Your task to perform on an android device: check out phone information Image 0: 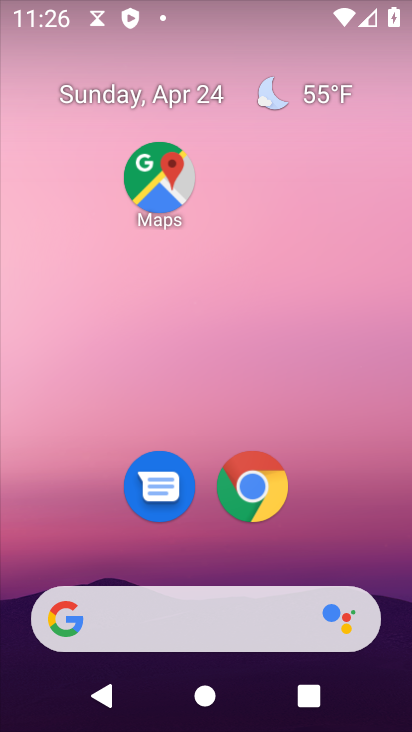
Step 0: click (363, 248)
Your task to perform on an android device: check out phone information Image 1: 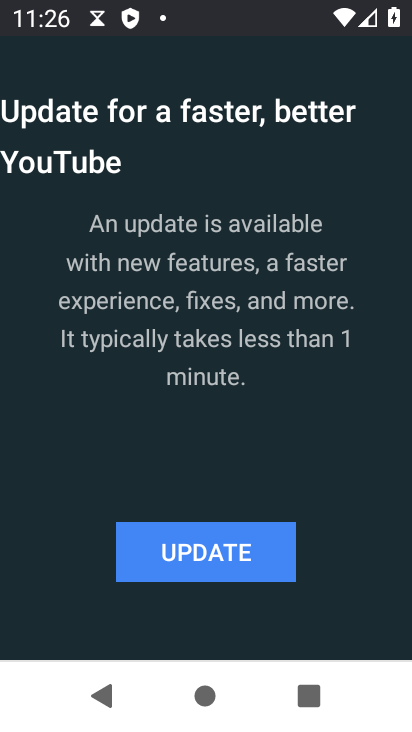
Step 1: press home button
Your task to perform on an android device: check out phone information Image 2: 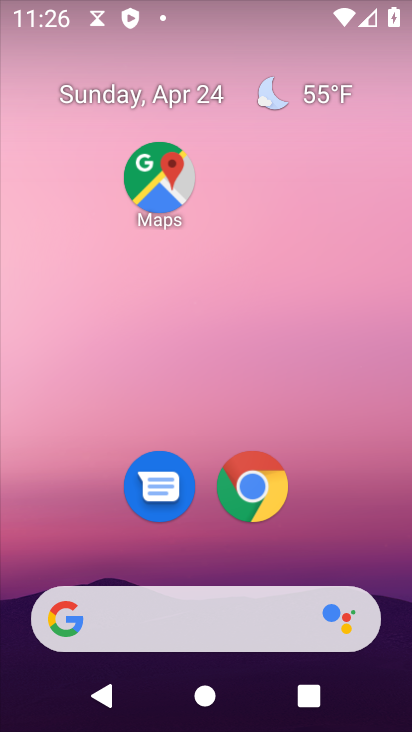
Step 2: drag from (286, 571) to (279, 197)
Your task to perform on an android device: check out phone information Image 3: 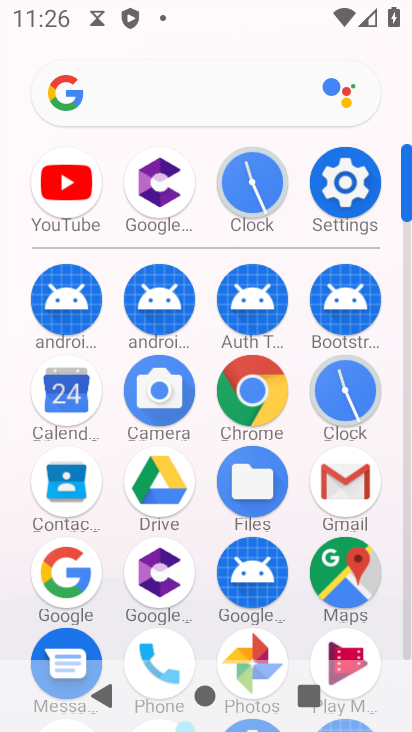
Step 3: click (360, 199)
Your task to perform on an android device: check out phone information Image 4: 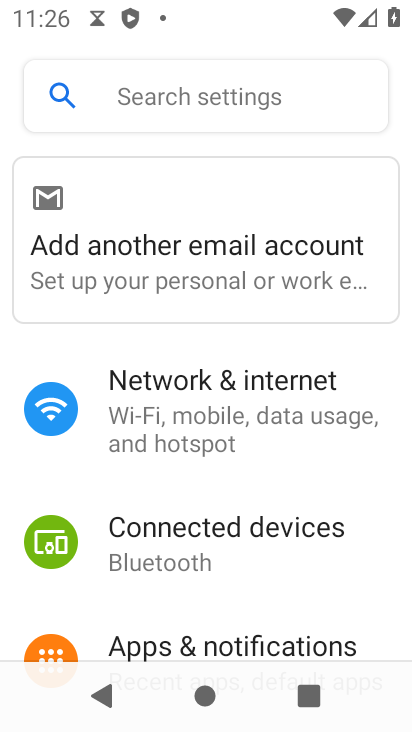
Step 4: drag from (258, 584) to (278, 60)
Your task to perform on an android device: check out phone information Image 5: 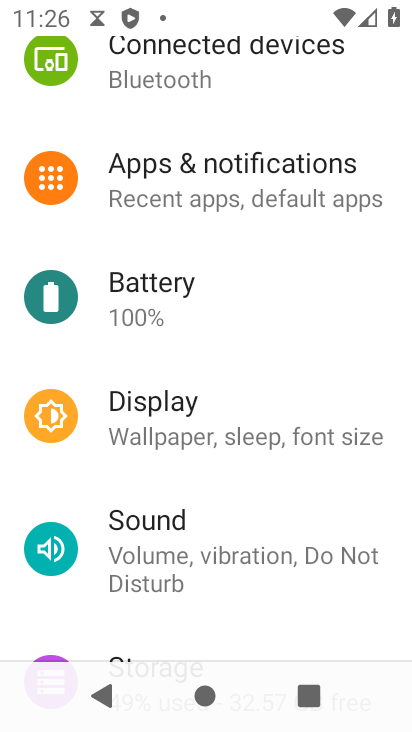
Step 5: drag from (297, 380) to (355, 18)
Your task to perform on an android device: check out phone information Image 6: 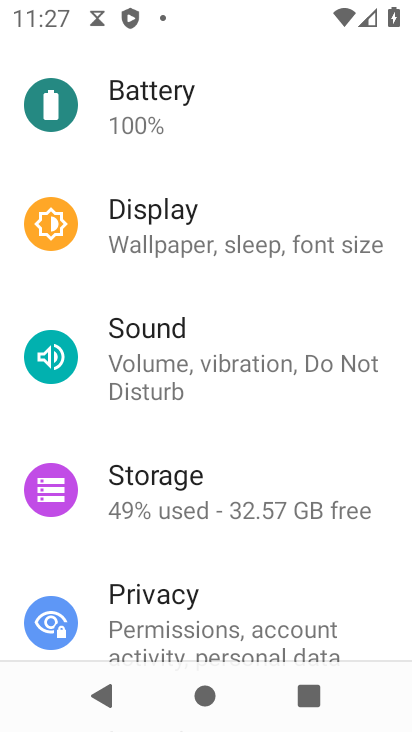
Step 6: drag from (264, 444) to (303, 34)
Your task to perform on an android device: check out phone information Image 7: 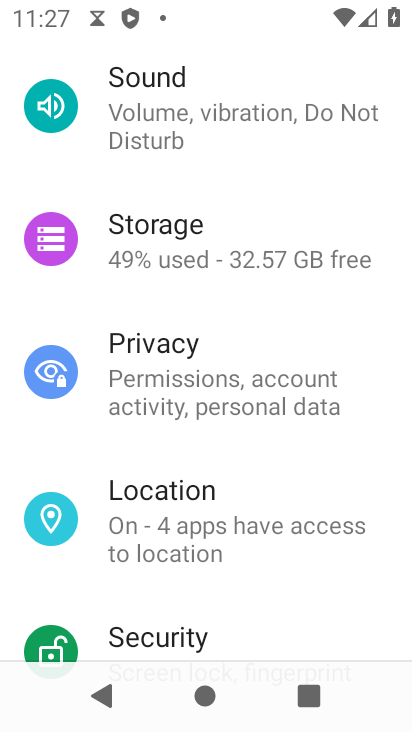
Step 7: drag from (243, 436) to (300, 19)
Your task to perform on an android device: check out phone information Image 8: 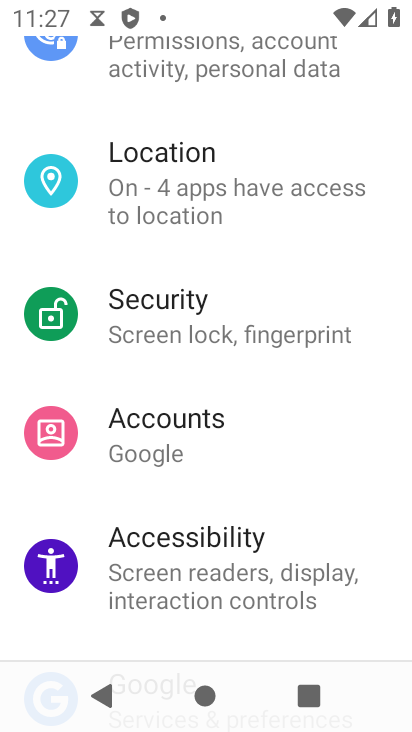
Step 8: drag from (174, 485) to (230, 61)
Your task to perform on an android device: check out phone information Image 9: 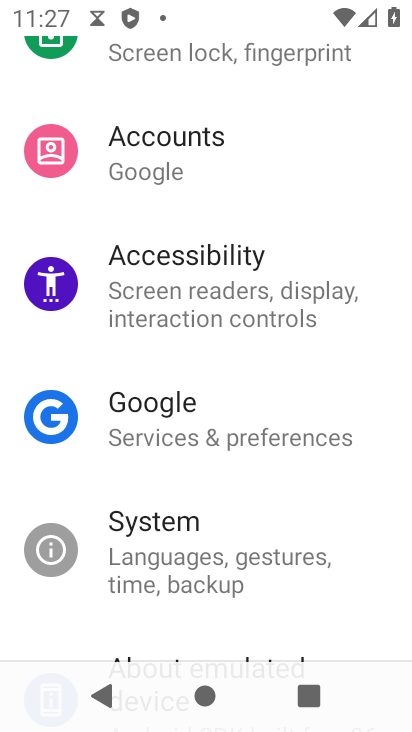
Step 9: drag from (243, 557) to (270, 123)
Your task to perform on an android device: check out phone information Image 10: 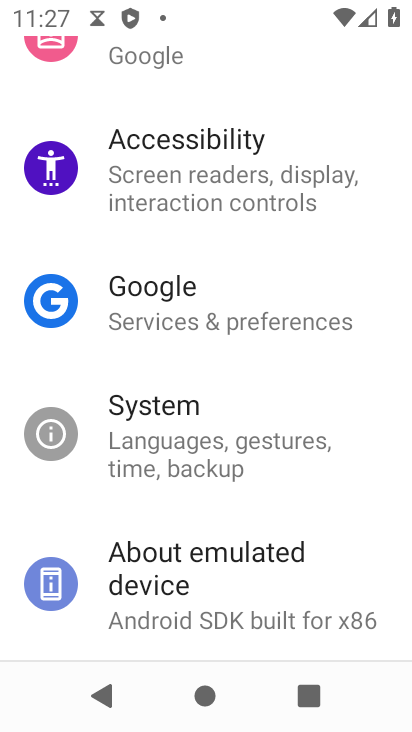
Step 10: click (276, 576)
Your task to perform on an android device: check out phone information Image 11: 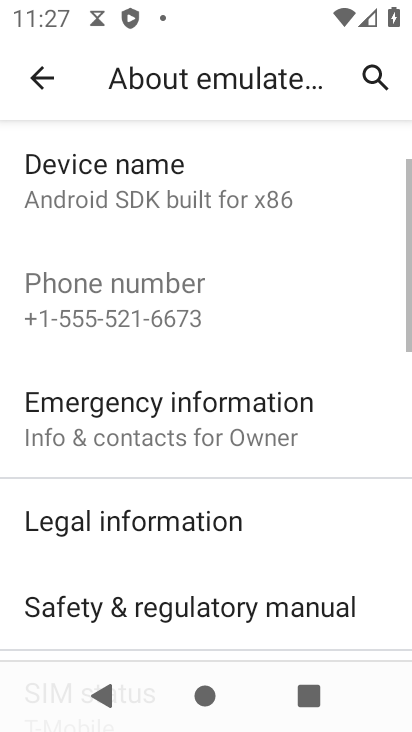
Step 11: task complete